Your task to perform on an android device: Open Reddit.com Image 0: 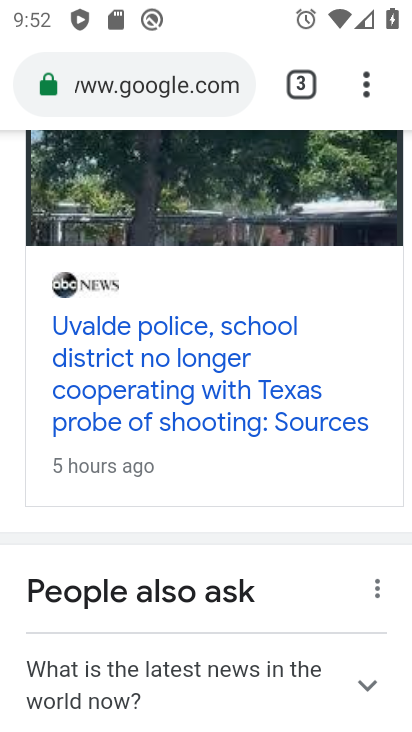
Step 0: press home button
Your task to perform on an android device: Open Reddit.com Image 1: 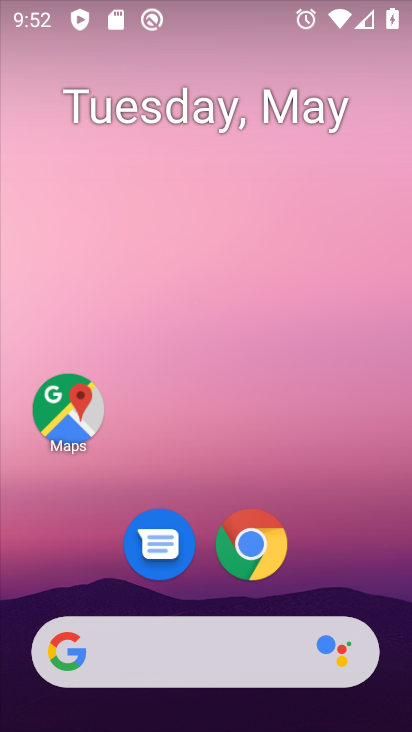
Step 1: drag from (349, 572) to (301, 215)
Your task to perform on an android device: Open Reddit.com Image 2: 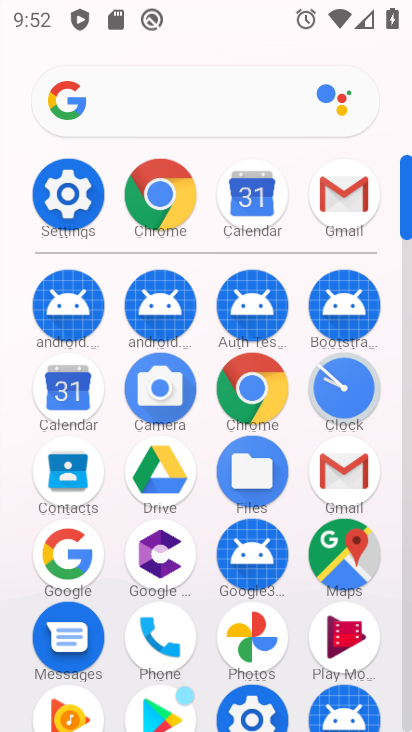
Step 2: click (242, 398)
Your task to perform on an android device: Open Reddit.com Image 3: 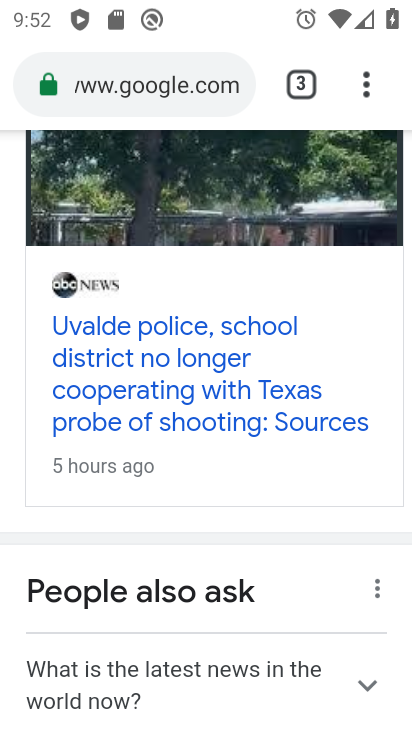
Step 3: click (179, 81)
Your task to perform on an android device: Open Reddit.com Image 4: 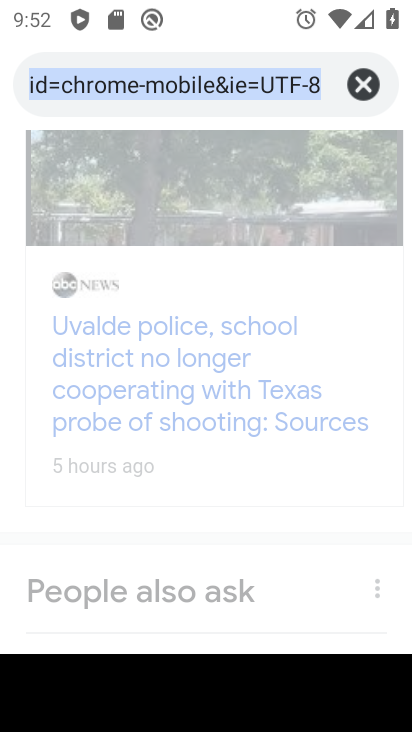
Step 4: click (361, 82)
Your task to perform on an android device: Open Reddit.com Image 5: 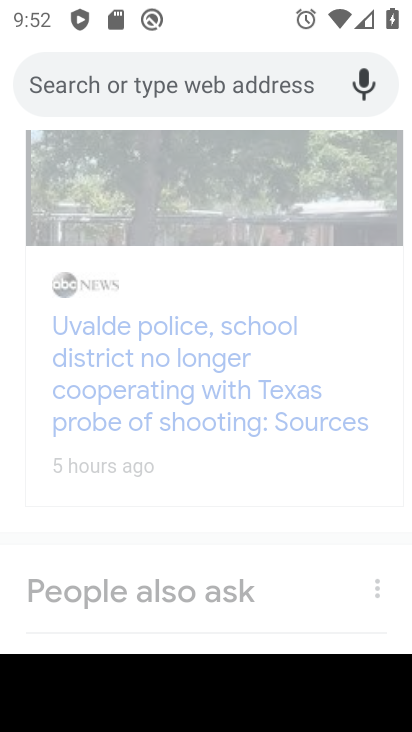
Step 5: type "reddit.com"
Your task to perform on an android device: Open Reddit.com Image 6: 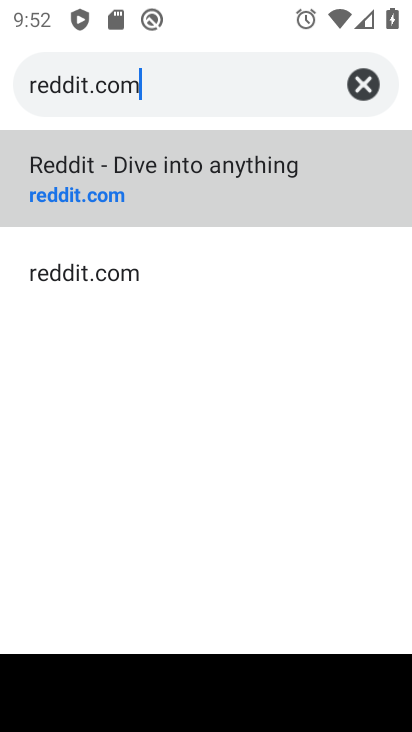
Step 6: click (213, 177)
Your task to perform on an android device: Open Reddit.com Image 7: 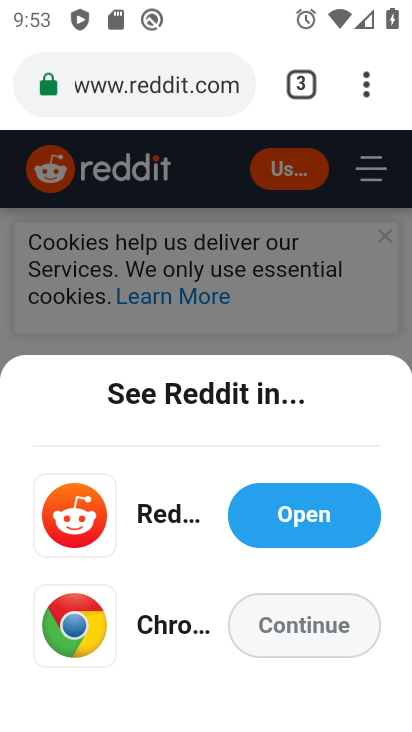
Step 7: task complete